Your task to perform on an android device: clear history in the chrome app Image 0: 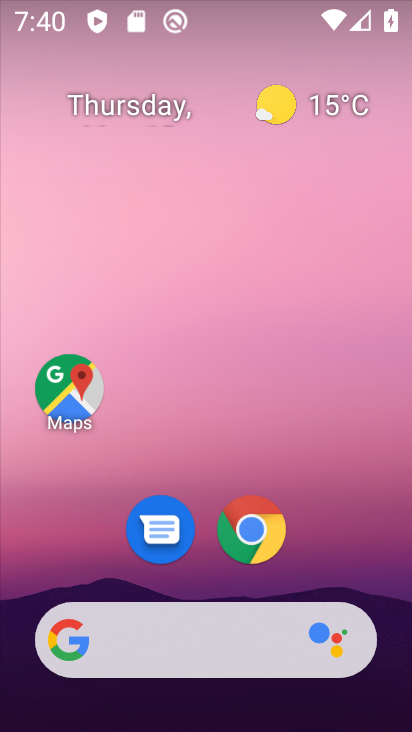
Step 0: click (245, 528)
Your task to perform on an android device: clear history in the chrome app Image 1: 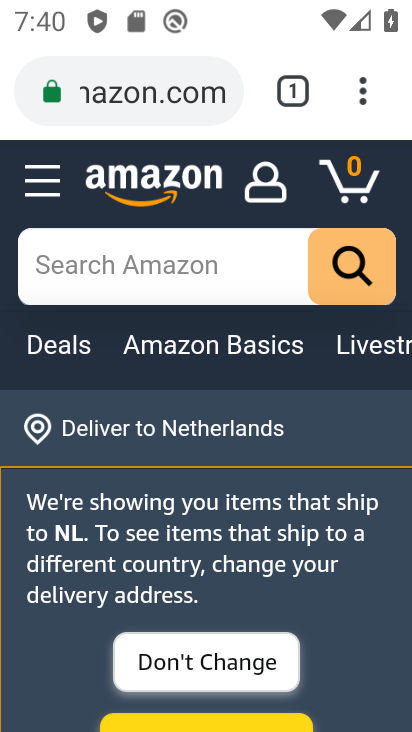
Step 1: click (356, 83)
Your task to perform on an android device: clear history in the chrome app Image 2: 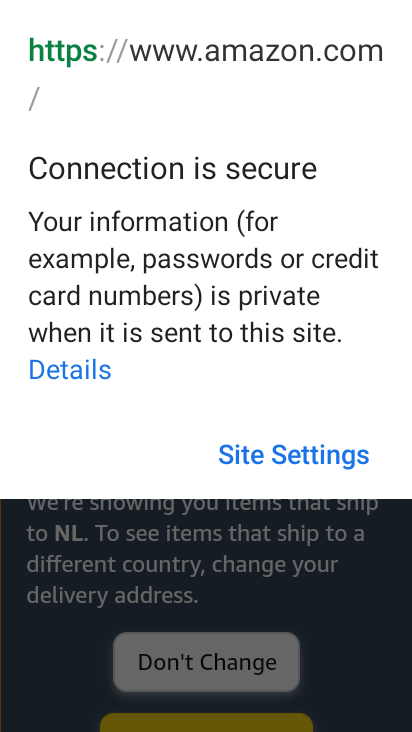
Step 2: click (220, 537)
Your task to perform on an android device: clear history in the chrome app Image 3: 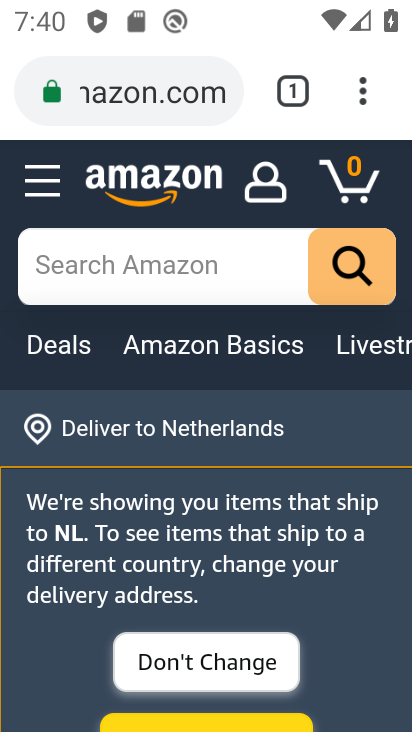
Step 3: drag from (367, 88) to (174, 186)
Your task to perform on an android device: clear history in the chrome app Image 4: 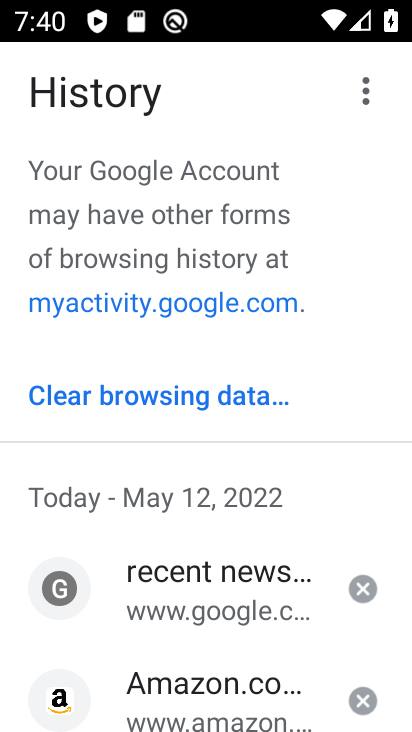
Step 4: click (168, 398)
Your task to perform on an android device: clear history in the chrome app Image 5: 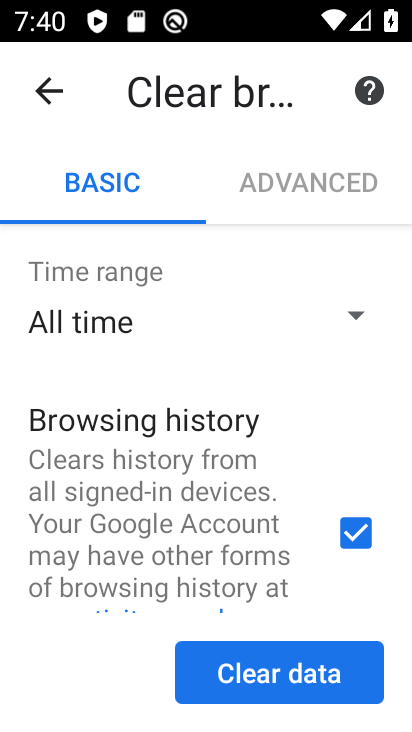
Step 5: click (278, 661)
Your task to perform on an android device: clear history in the chrome app Image 6: 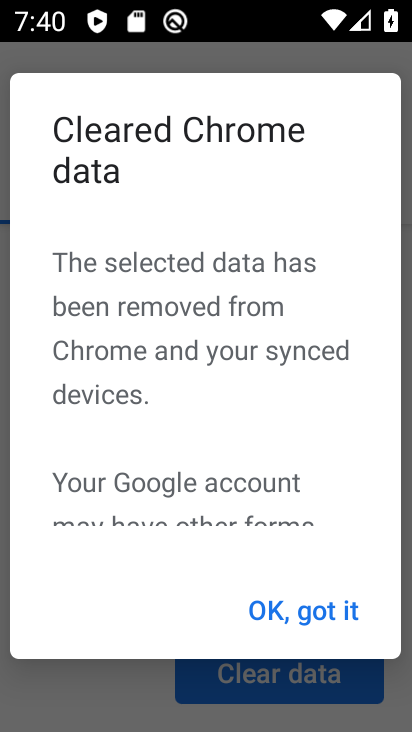
Step 6: click (286, 604)
Your task to perform on an android device: clear history in the chrome app Image 7: 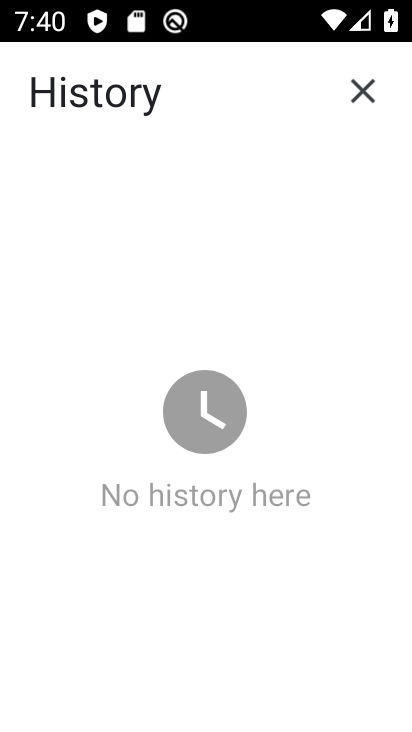
Step 7: task complete